Your task to perform on an android device: check android version Image 0: 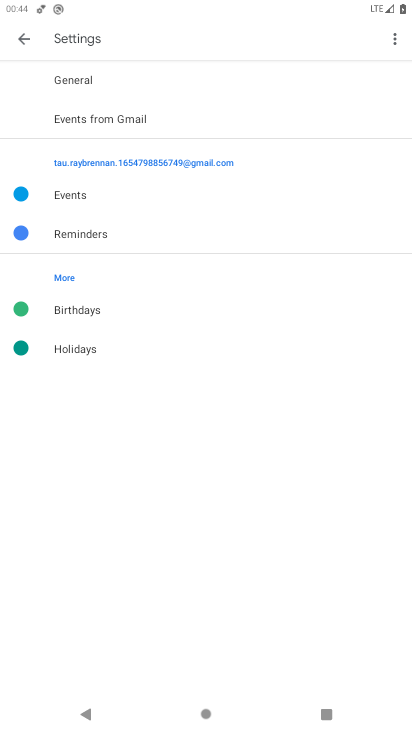
Step 0: press home button
Your task to perform on an android device: check android version Image 1: 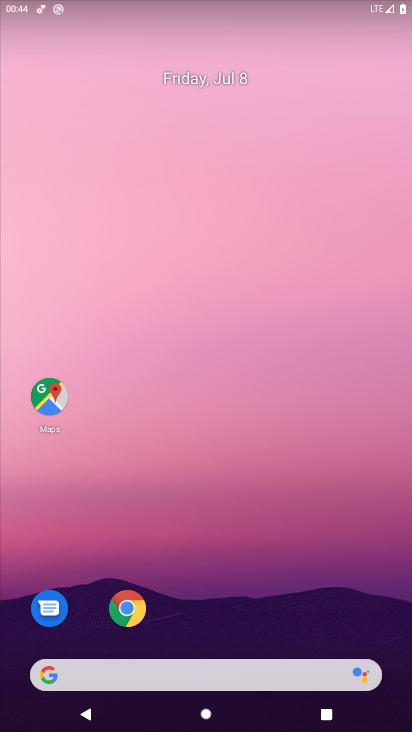
Step 1: drag from (230, 677) to (229, 21)
Your task to perform on an android device: check android version Image 2: 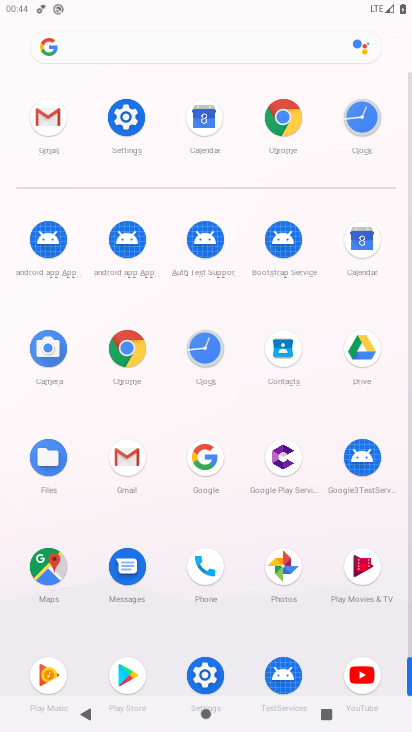
Step 2: click (114, 118)
Your task to perform on an android device: check android version Image 3: 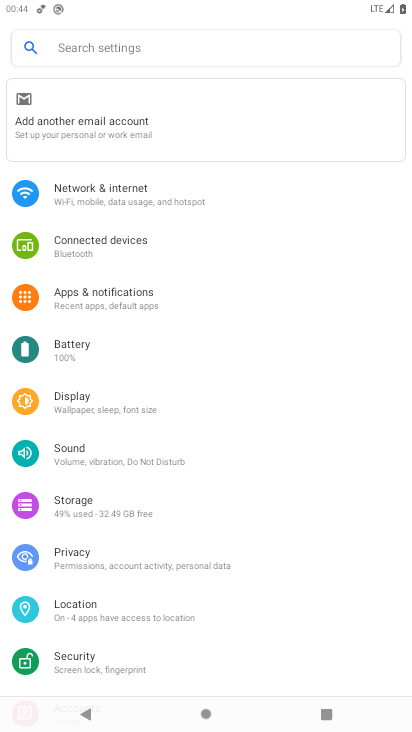
Step 3: drag from (118, 560) to (156, 162)
Your task to perform on an android device: check android version Image 4: 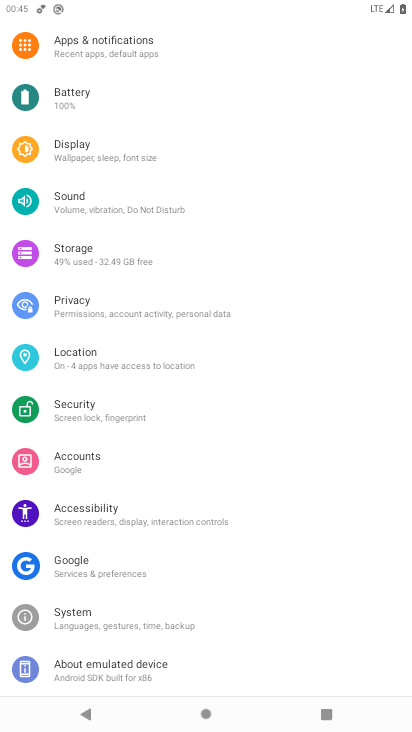
Step 4: click (133, 651)
Your task to perform on an android device: check android version Image 5: 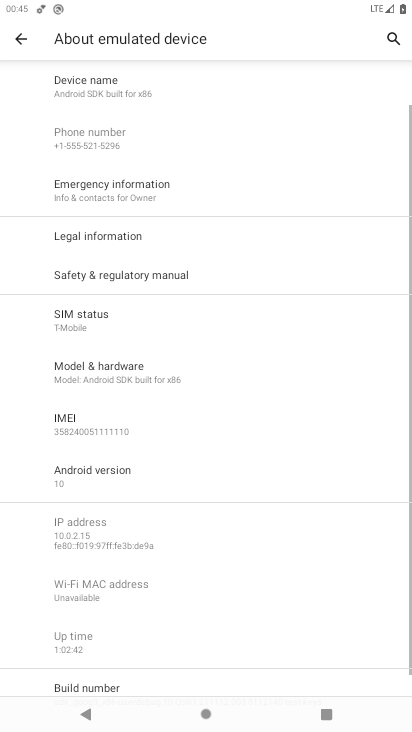
Step 5: click (156, 473)
Your task to perform on an android device: check android version Image 6: 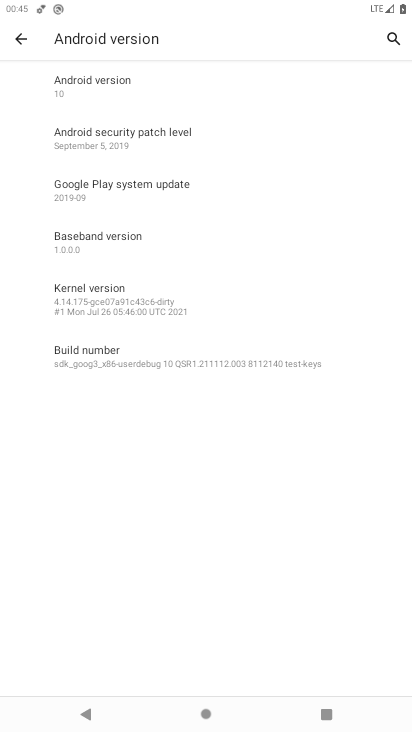
Step 6: click (113, 80)
Your task to perform on an android device: check android version Image 7: 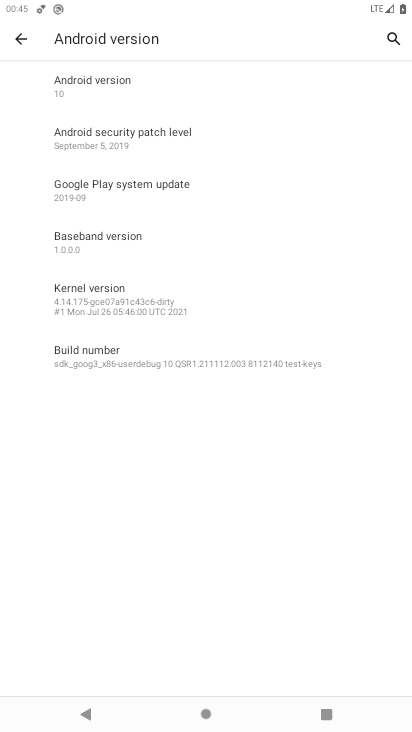
Step 7: task complete